Your task to perform on an android device: Open the web browser Image 0: 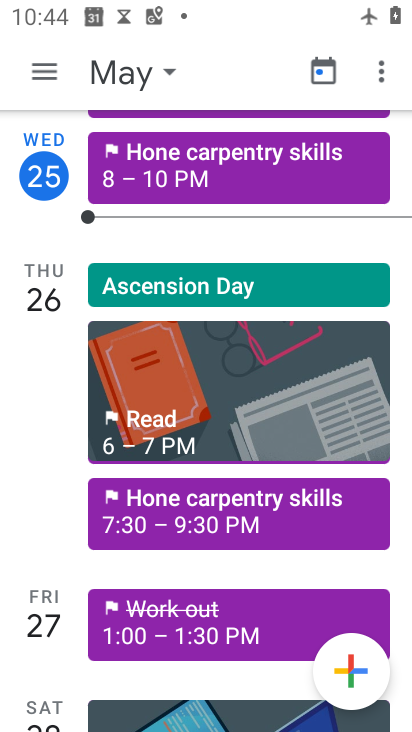
Step 0: press home button
Your task to perform on an android device: Open the web browser Image 1: 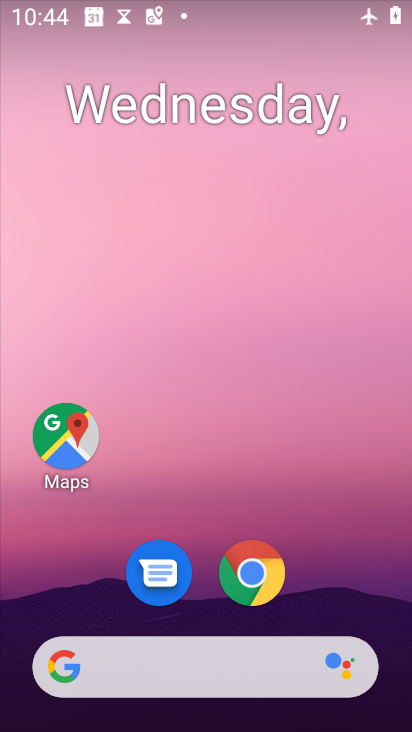
Step 1: click (235, 565)
Your task to perform on an android device: Open the web browser Image 2: 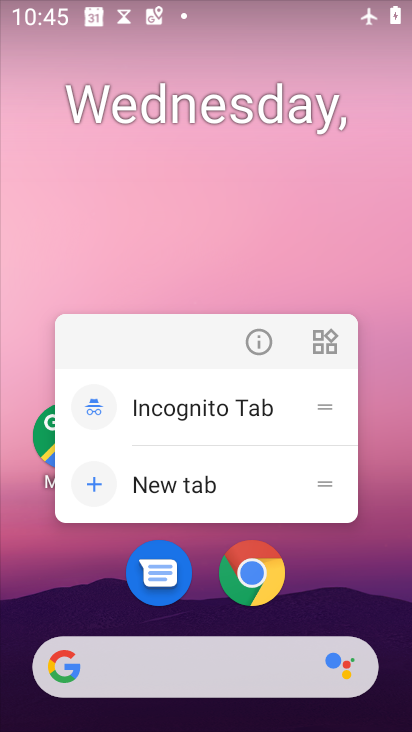
Step 2: click (239, 567)
Your task to perform on an android device: Open the web browser Image 3: 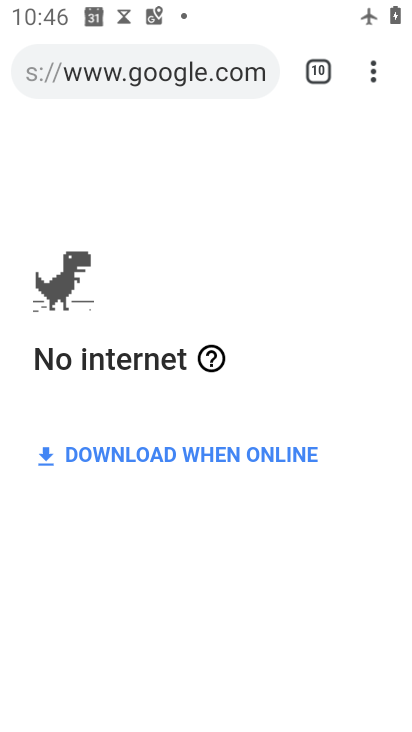
Step 3: task complete